Your task to perform on an android device: Search for seafood restaurants on Google Maps Image 0: 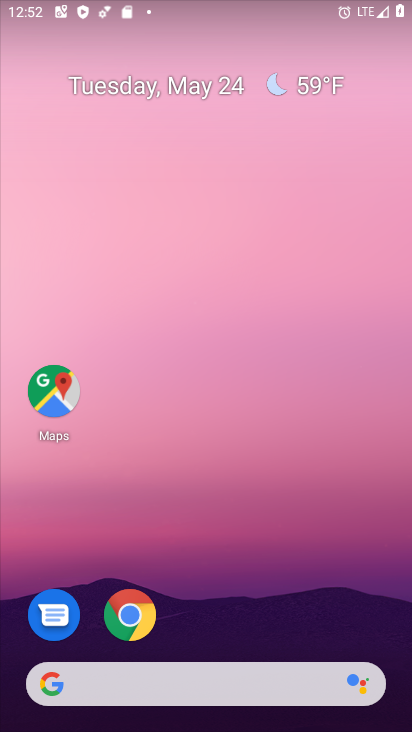
Step 0: drag from (212, 364) to (218, 58)
Your task to perform on an android device: Search for seafood restaurants on Google Maps Image 1: 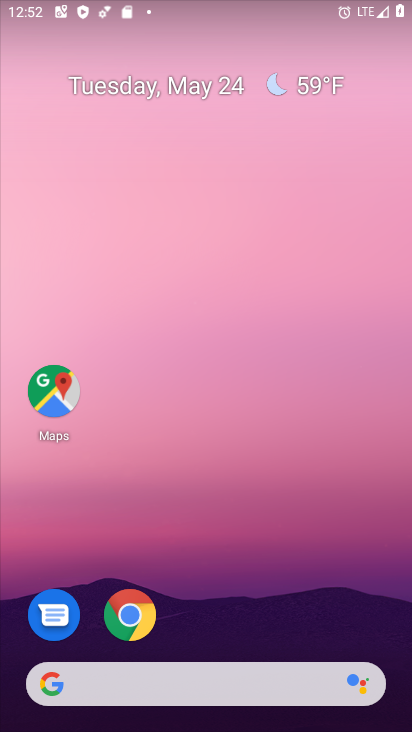
Step 1: drag from (205, 610) to (100, 0)
Your task to perform on an android device: Search for seafood restaurants on Google Maps Image 2: 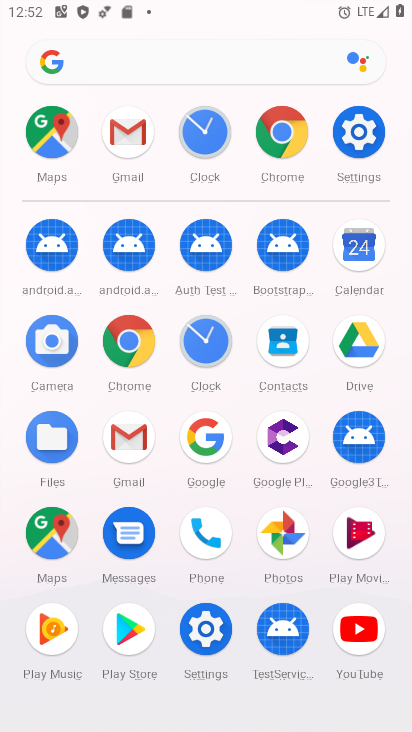
Step 2: drag from (15, 551) to (0, 264)
Your task to perform on an android device: Search for seafood restaurants on Google Maps Image 3: 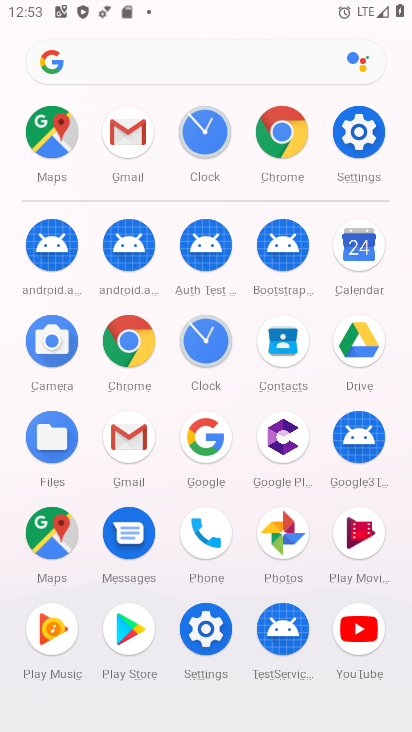
Step 3: click (49, 530)
Your task to perform on an android device: Search for seafood restaurants on Google Maps Image 4: 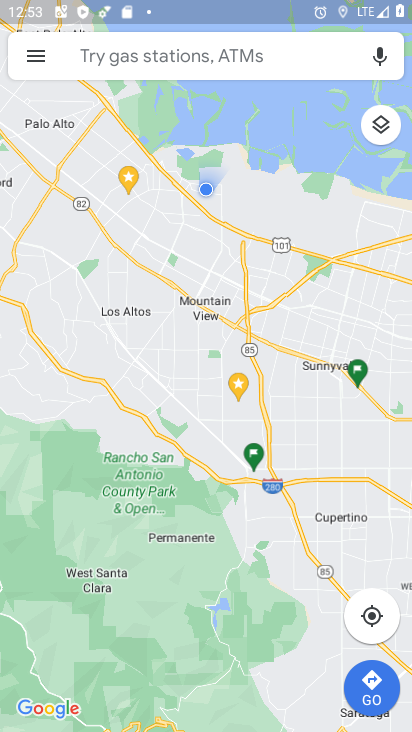
Step 4: click (34, 48)
Your task to perform on an android device: Search for seafood restaurants on Google Maps Image 5: 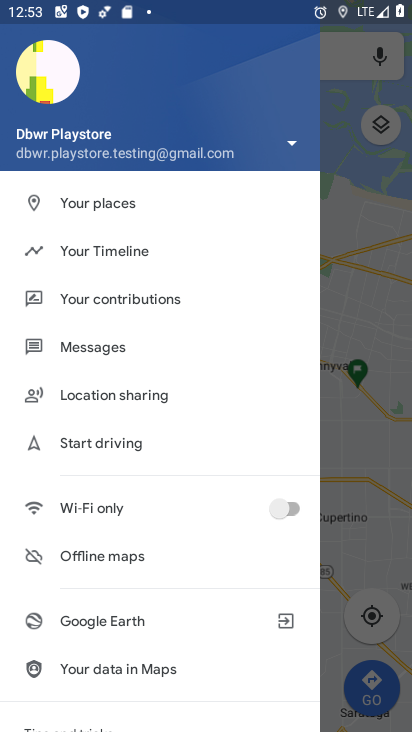
Step 5: drag from (174, 589) to (175, 105)
Your task to perform on an android device: Search for seafood restaurants on Google Maps Image 6: 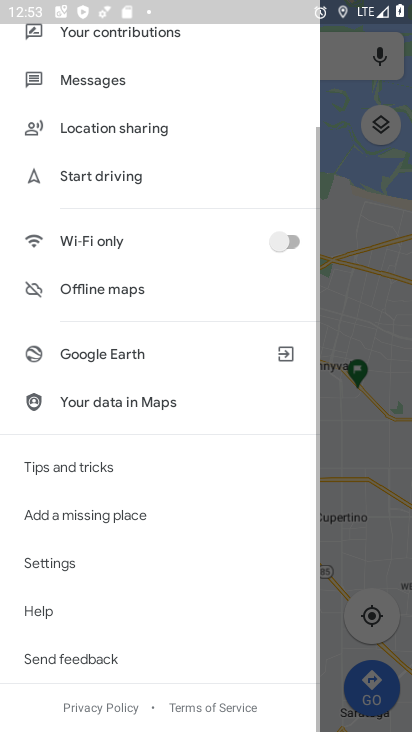
Step 6: drag from (181, 159) to (190, 609)
Your task to perform on an android device: Search for seafood restaurants on Google Maps Image 7: 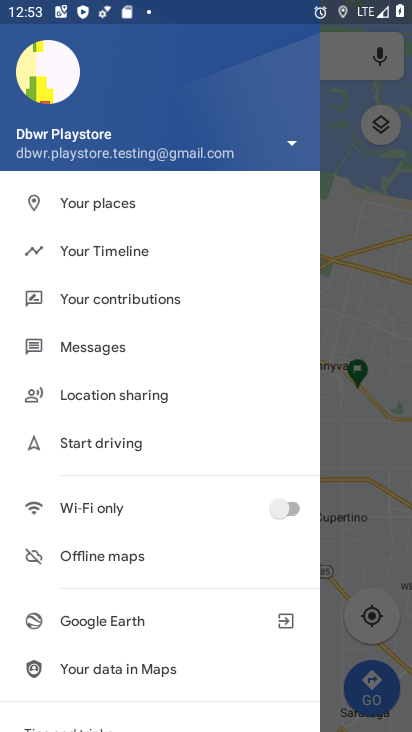
Step 7: click (386, 161)
Your task to perform on an android device: Search for seafood restaurants on Google Maps Image 8: 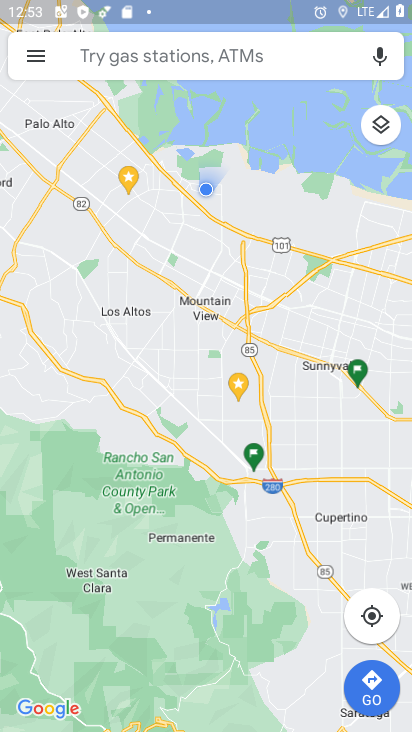
Step 8: click (70, 53)
Your task to perform on an android device: Search for seafood restaurants on Google Maps Image 9: 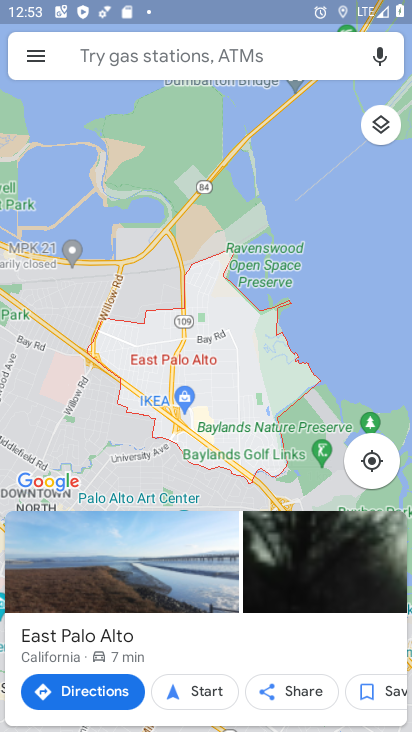
Step 9: click (82, 48)
Your task to perform on an android device: Search for seafood restaurants on Google Maps Image 10: 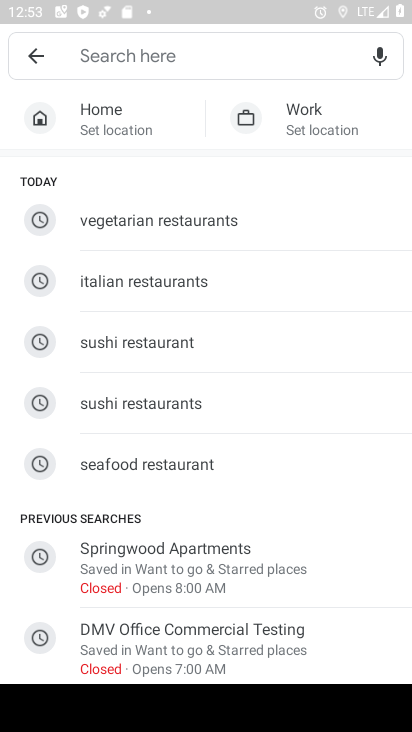
Step 10: click (149, 454)
Your task to perform on an android device: Search for seafood restaurants on Google Maps Image 11: 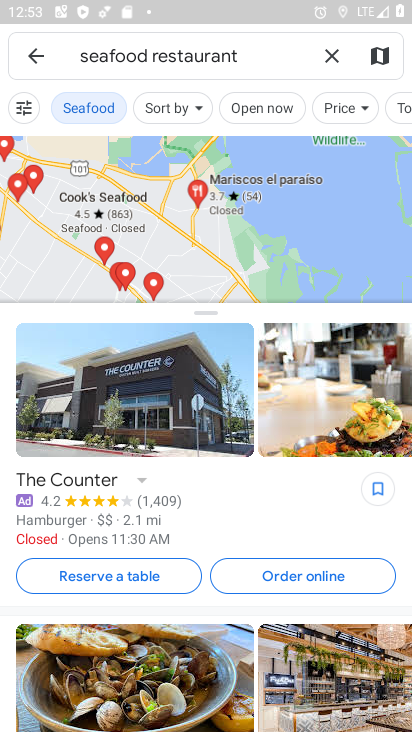
Step 11: task complete